Your task to perform on an android device: see sites visited before in the chrome app Image 0: 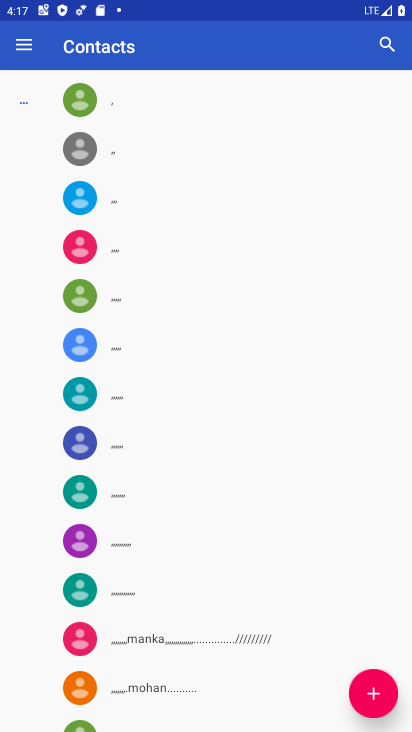
Step 0: press back button
Your task to perform on an android device: see sites visited before in the chrome app Image 1: 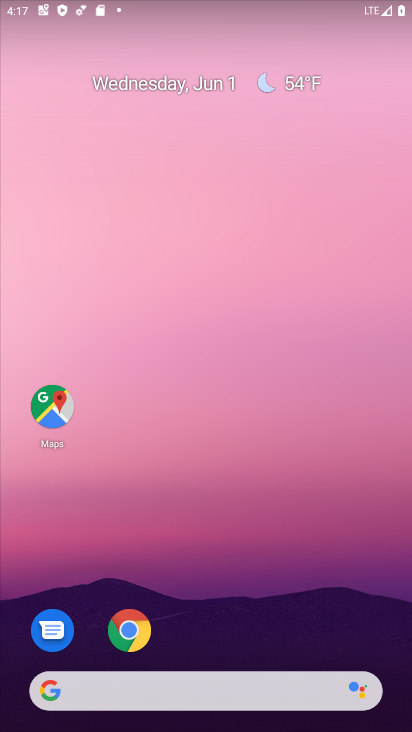
Step 1: drag from (272, 567) to (225, 1)
Your task to perform on an android device: see sites visited before in the chrome app Image 2: 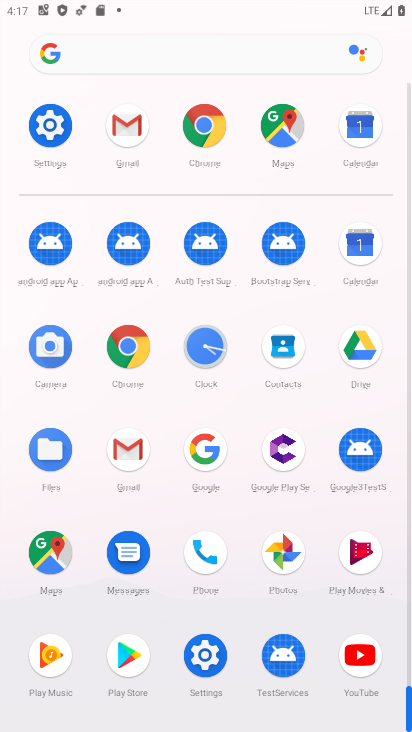
Step 2: drag from (15, 515) to (5, 254)
Your task to perform on an android device: see sites visited before in the chrome app Image 3: 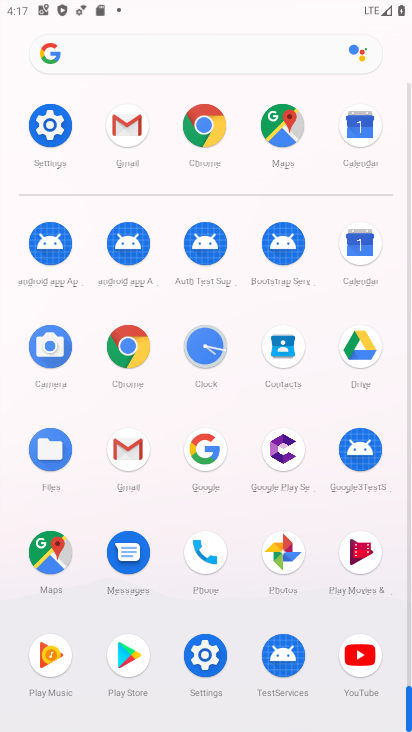
Step 3: click (129, 341)
Your task to perform on an android device: see sites visited before in the chrome app Image 4: 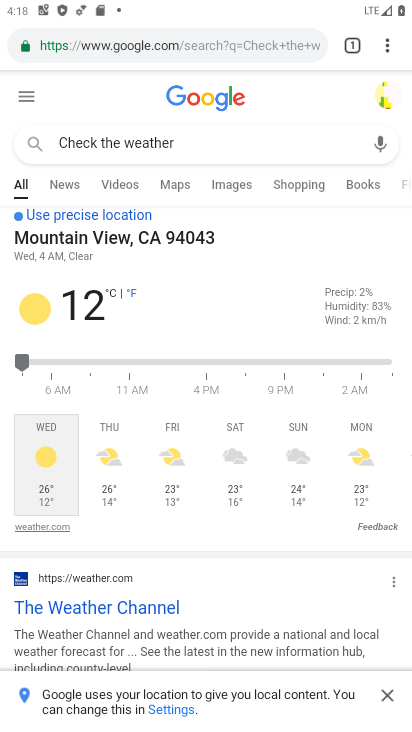
Step 4: drag from (385, 36) to (241, 495)
Your task to perform on an android device: see sites visited before in the chrome app Image 5: 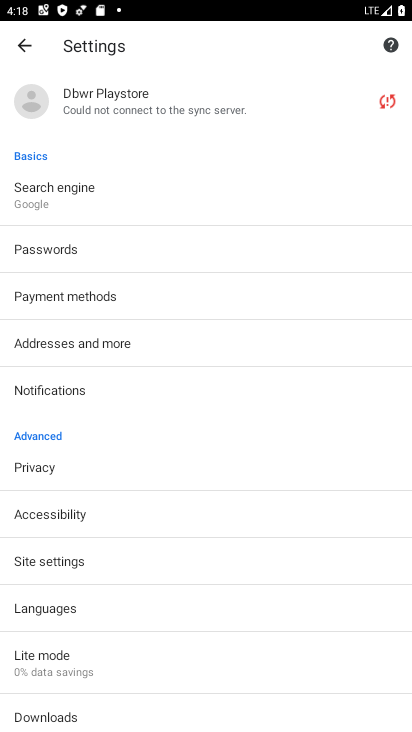
Step 5: drag from (166, 577) to (160, 159)
Your task to perform on an android device: see sites visited before in the chrome app Image 6: 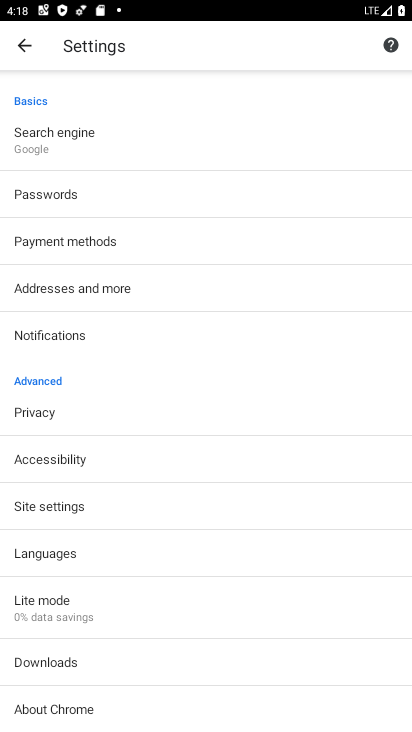
Step 6: click (26, 46)
Your task to perform on an android device: see sites visited before in the chrome app Image 7: 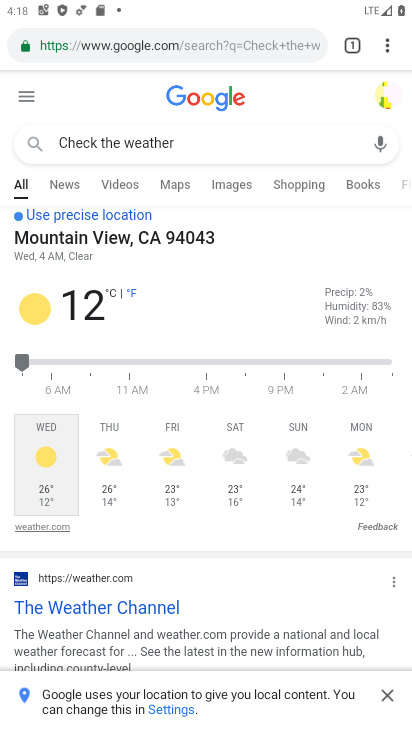
Step 7: task complete